Your task to perform on an android device: toggle improve location accuracy Image 0: 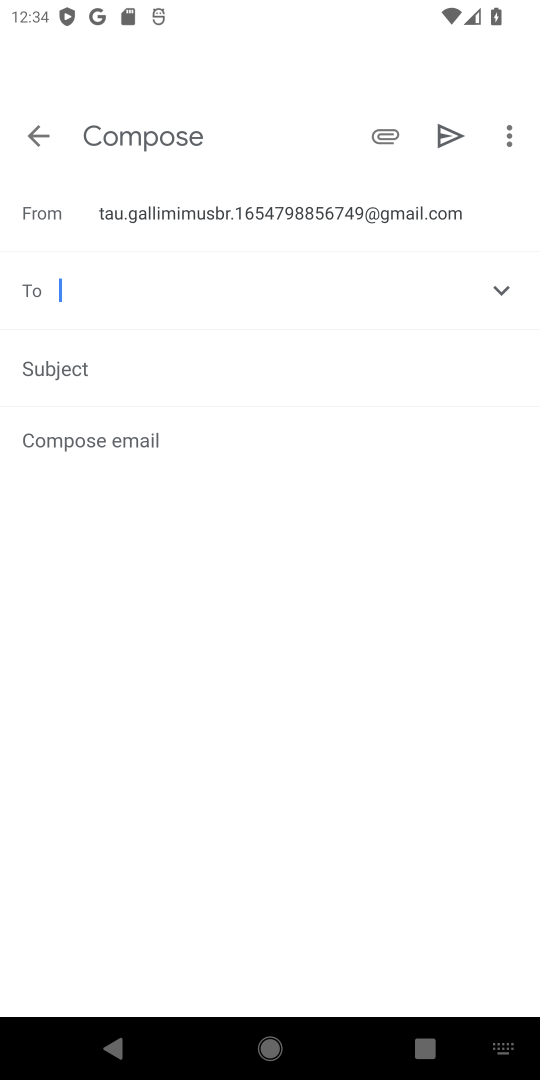
Step 0: press home button
Your task to perform on an android device: toggle improve location accuracy Image 1: 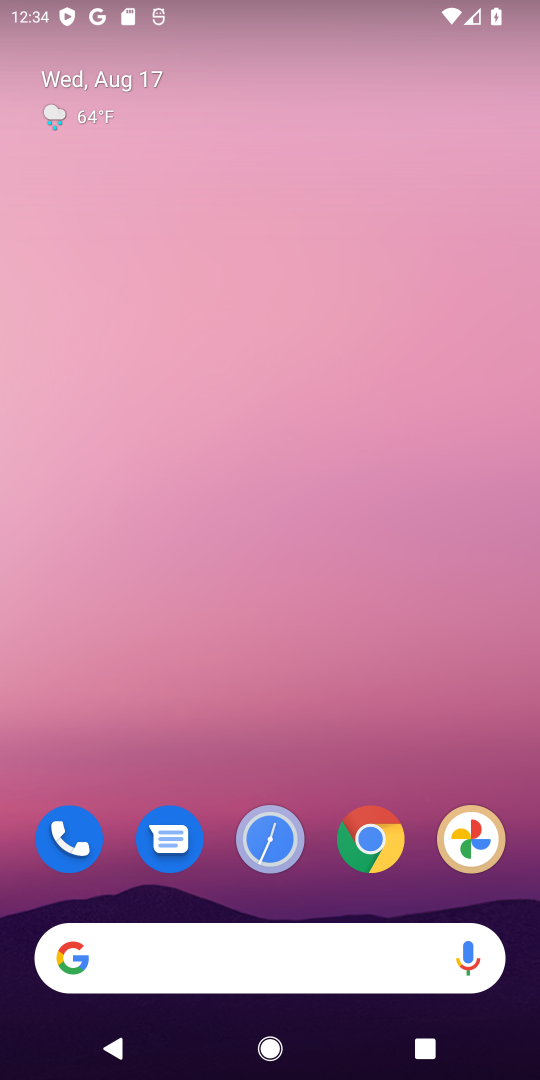
Step 1: drag from (229, 972) to (324, 244)
Your task to perform on an android device: toggle improve location accuracy Image 2: 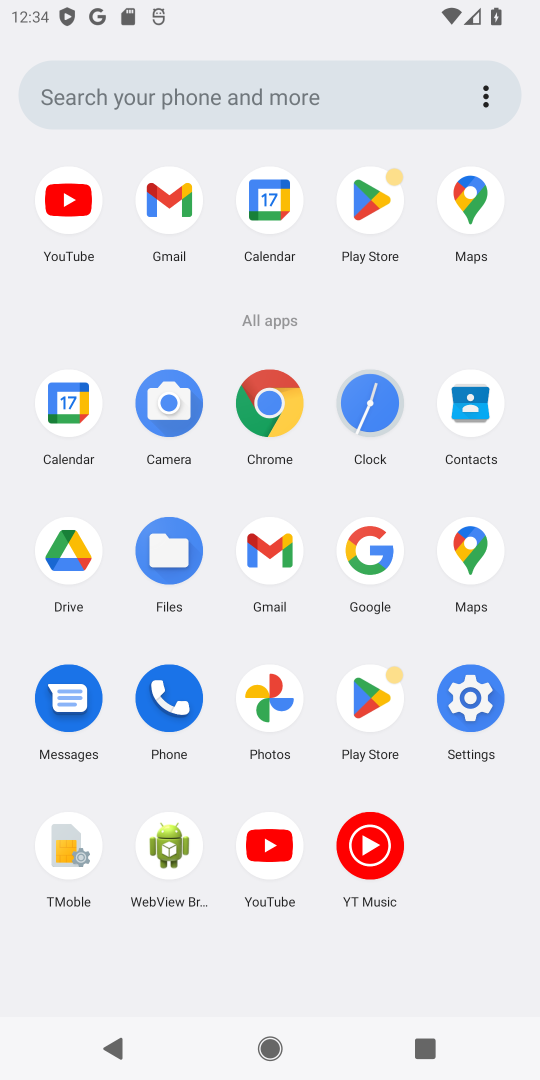
Step 2: click (470, 693)
Your task to perform on an android device: toggle improve location accuracy Image 3: 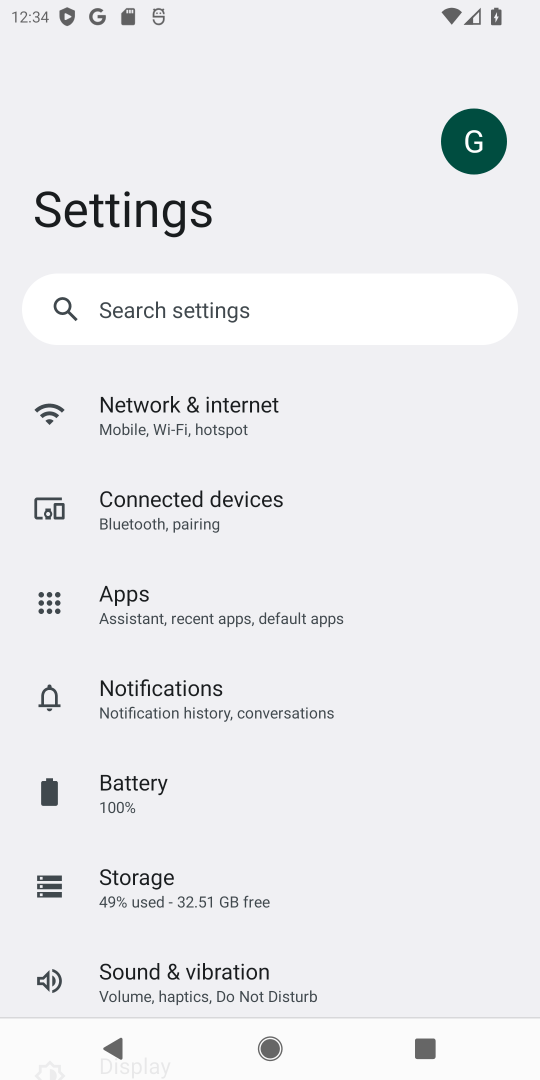
Step 3: drag from (168, 845) to (243, 699)
Your task to perform on an android device: toggle improve location accuracy Image 4: 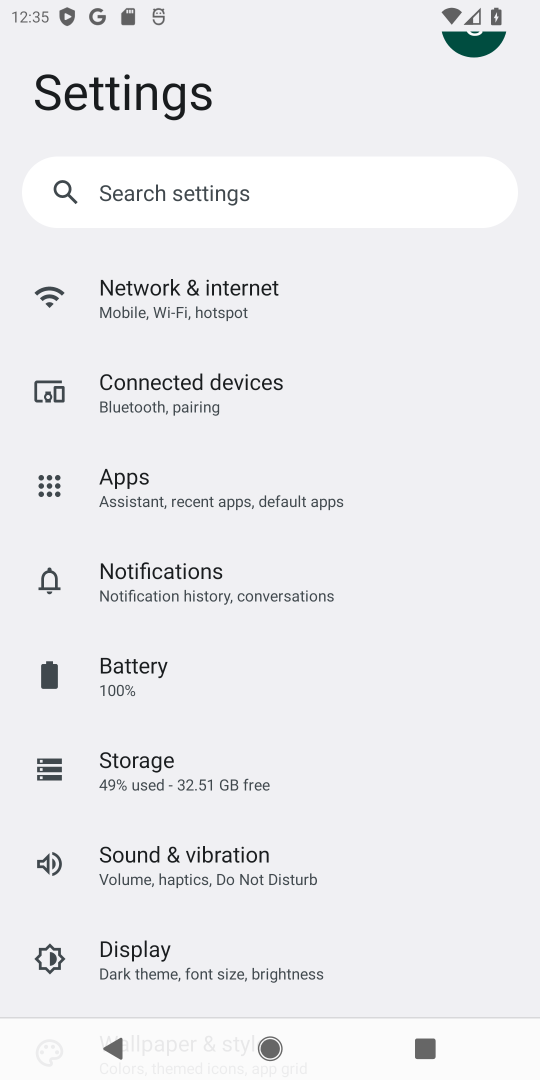
Step 4: drag from (208, 875) to (304, 732)
Your task to perform on an android device: toggle improve location accuracy Image 5: 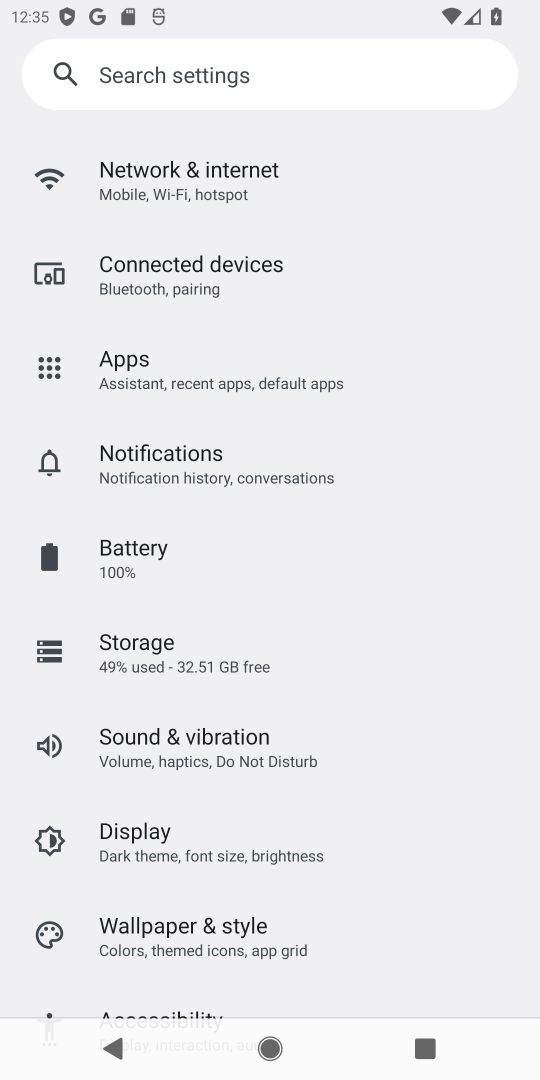
Step 5: drag from (151, 881) to (269, 718)
Your task to perform on an android device: toggle improve location accuracy Image 6: 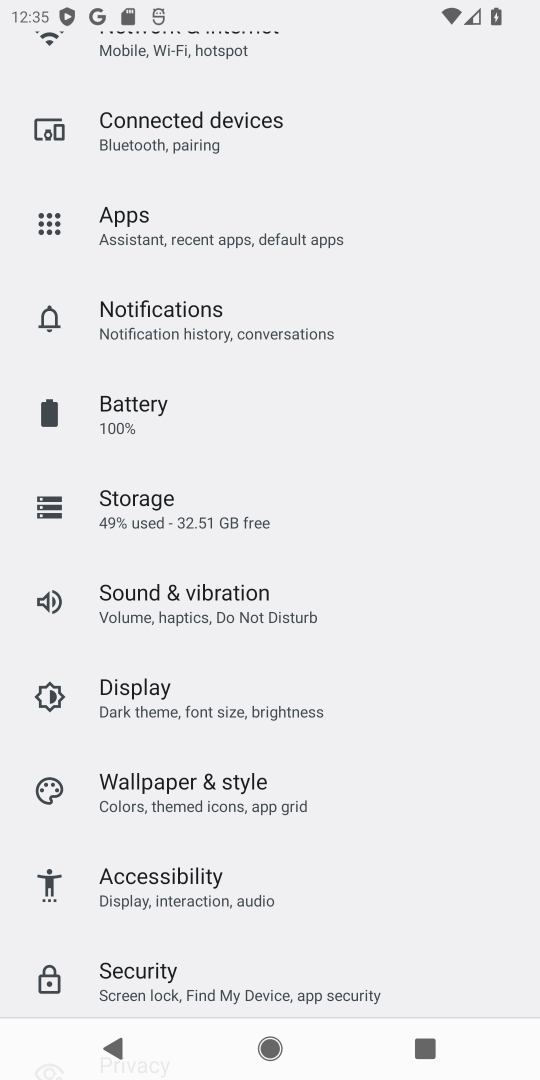
Step 6: drag from (139, 915) to (278, 746)
Your task to perform on an android device: toggle improve location accuracy Image 7: 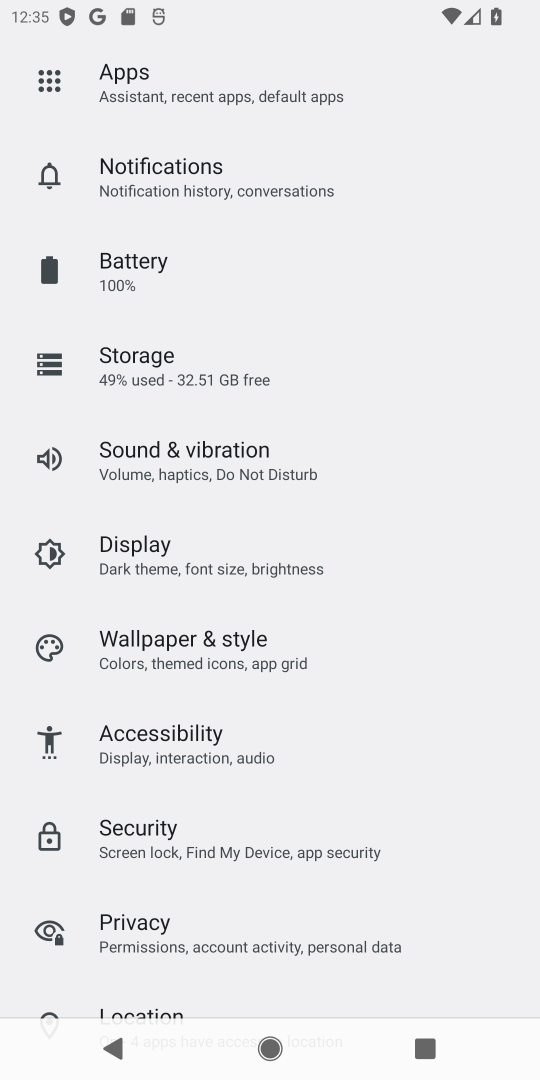
Step 7: drag from (155, 886) to (245, 749)
Your task to perform on an android device: toggle improve location accuracy Image 8: 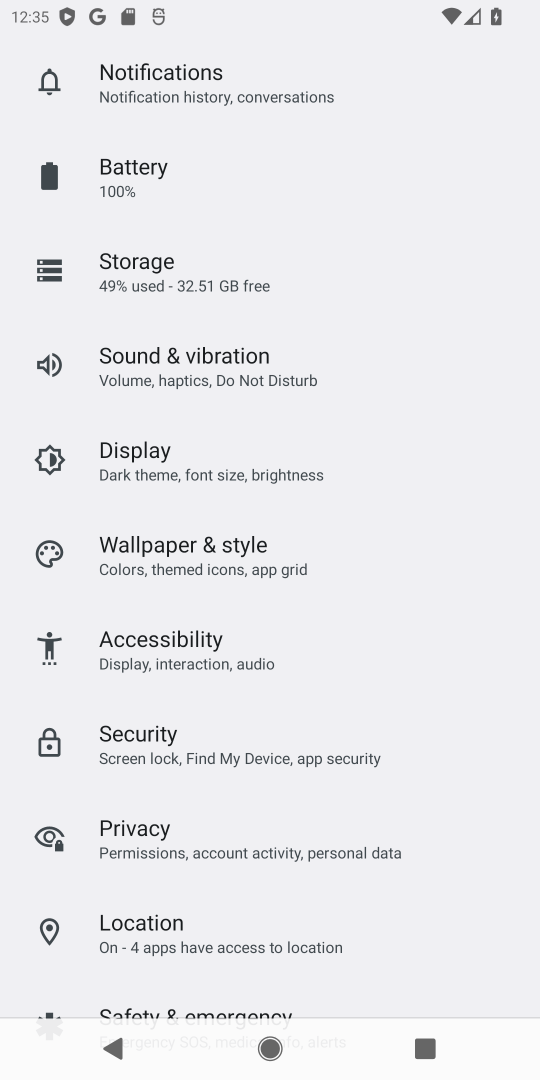
Step 8: drag from (150, 885) to (292, 718)
Your task to perform on an android device: toggle improve location accuracy Image 9: 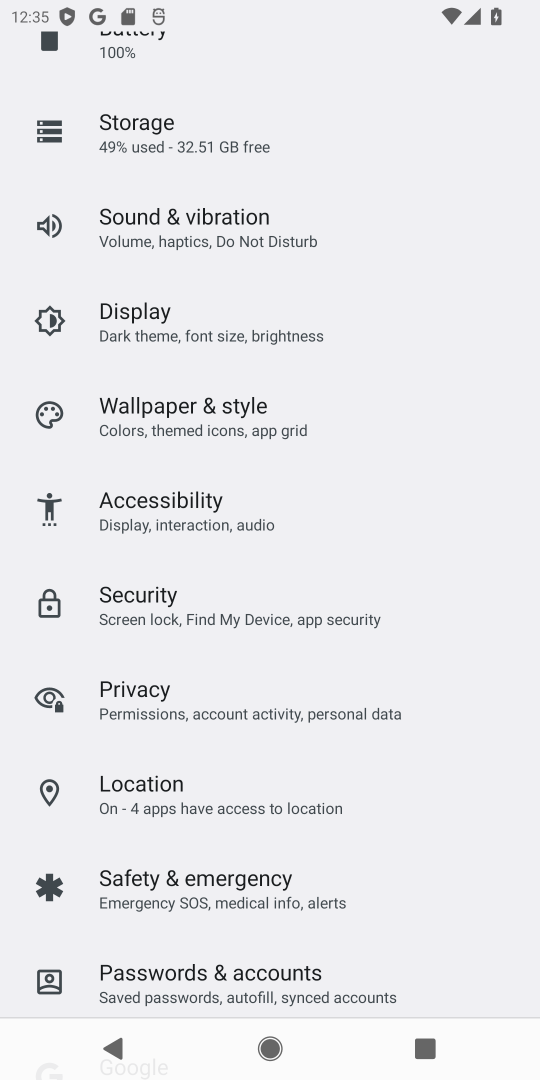
Step 9: click (163, 804)
Your task to perform on an android device: toggle improve location accuracy Image 10: 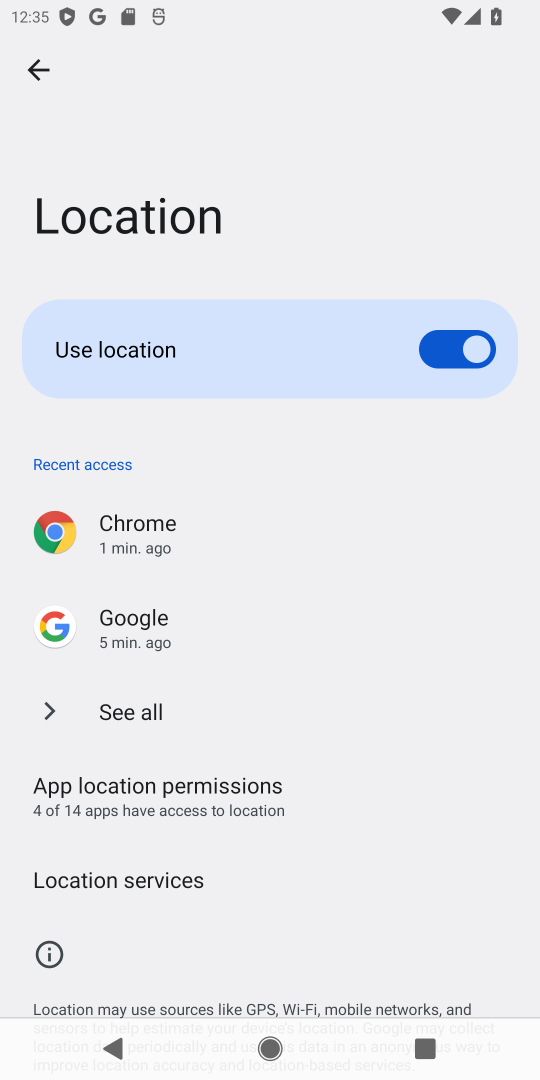
Step 10: click (117, 881)
Your task to perform on an android device: toggle improve location accuracy Image 11: 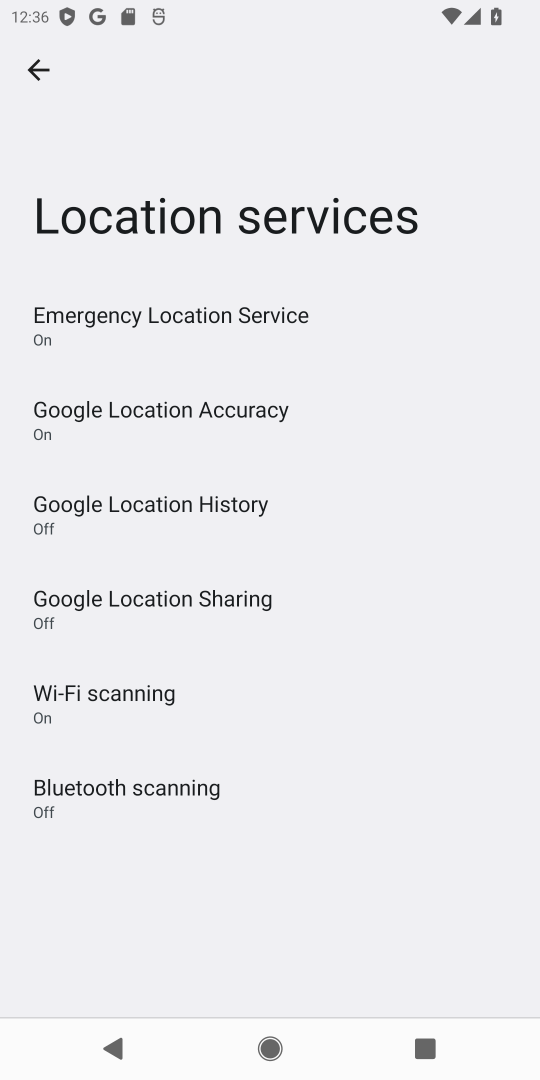
Step 11: click (235, 422)
Your task to perform on an android device: toggle improve location accuracy Image 12: 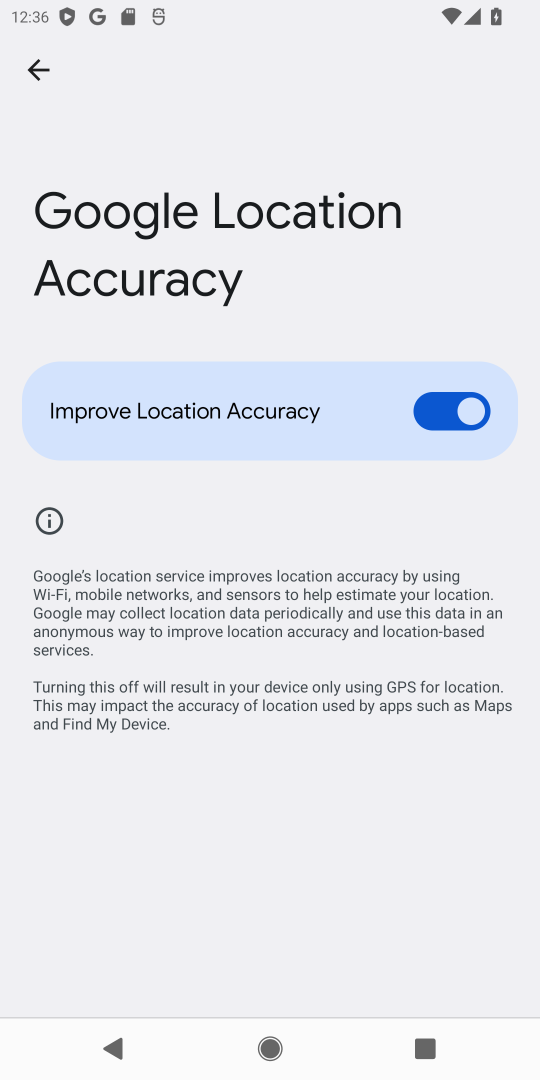
Step 12: click (421, 409)
Your task to perform on an android device: toggle improve location accuracy Image 13: 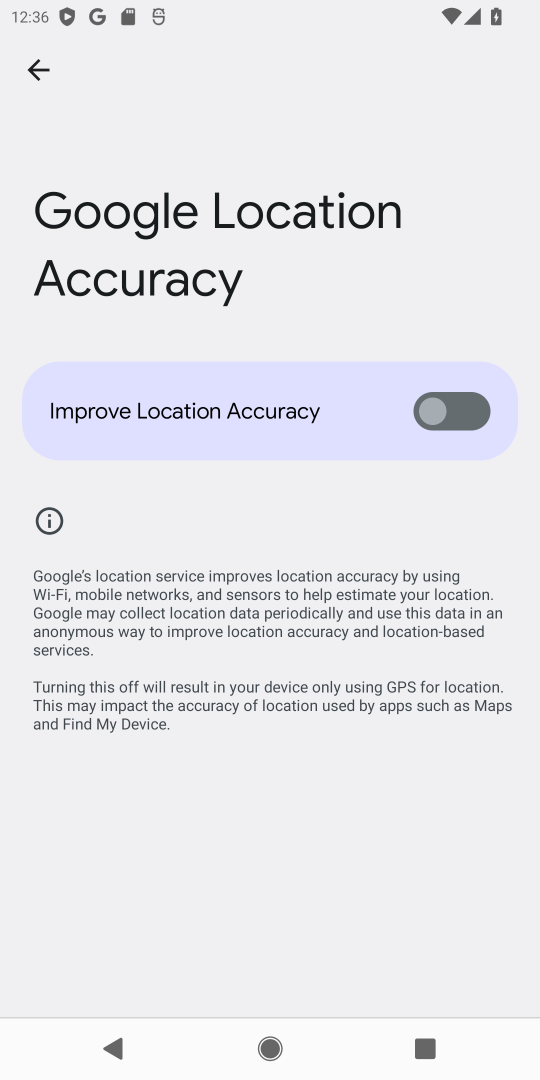
Step 13: task complete